Your task to perform on an android device: Open eBay Image 0: 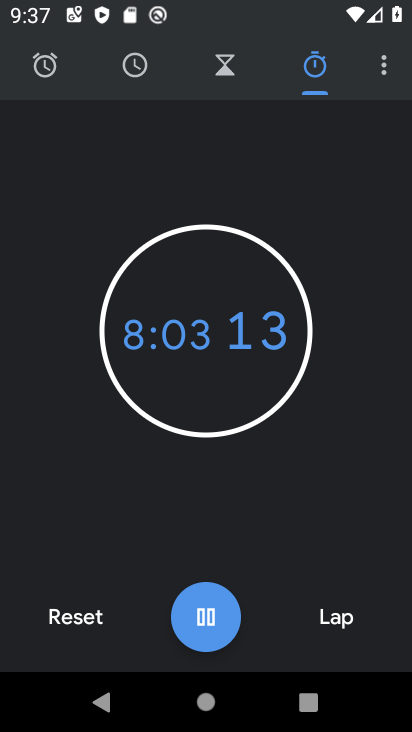
Step 0: press home button
Your task to perform on an android device: Open eBay Image 1: 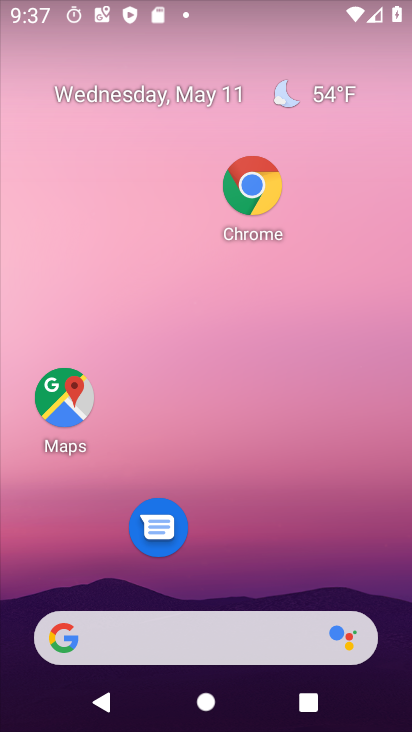
Step 1: drag from (259, 580) to (254, 45)
Your task to perform on an android device: Open eBay Image 2: 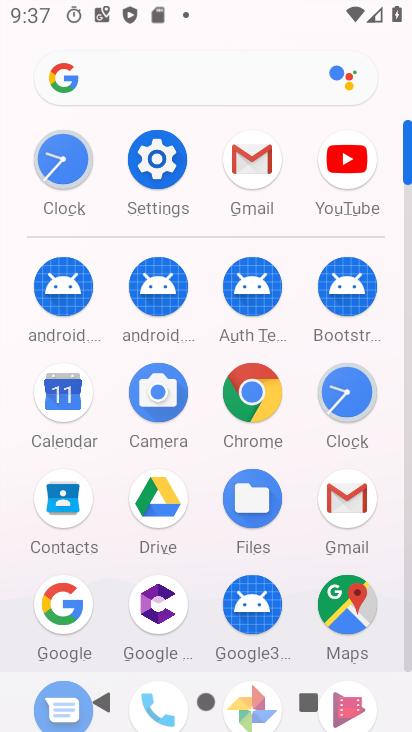
Step 2: click (67, 600)
Your task to perform on an android device: Open eBay Image 3: 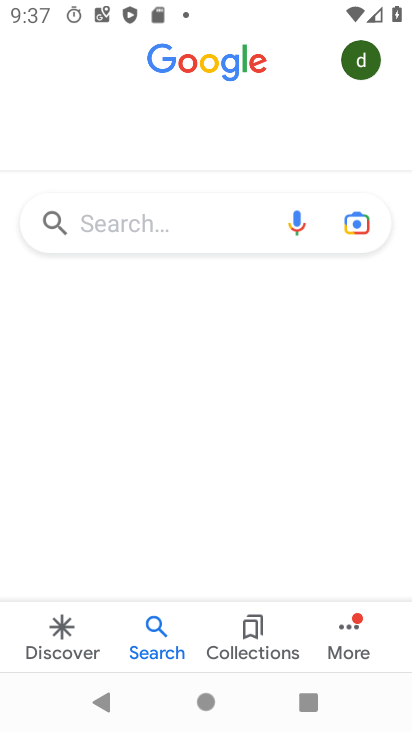
Step 3: click (163, 221)
Your task to perform on an android device: Open eBay Image 4: 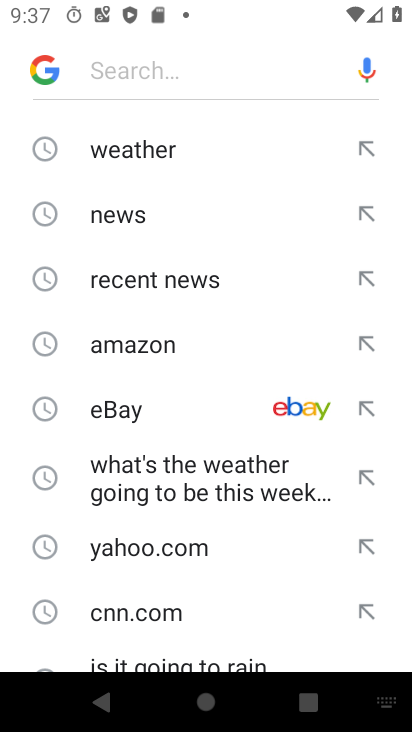
Step 4: click (139, 414)
Your task to perform on an android device: Open eBay Image 5: 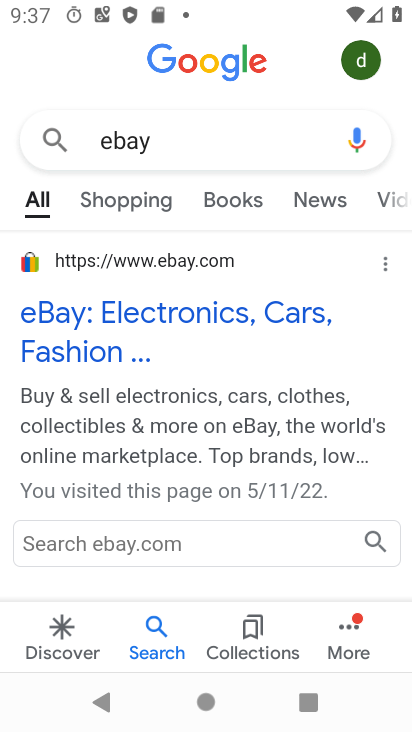
Step 5: task complete